Your task to perform on an android device: Open maps Image 0: 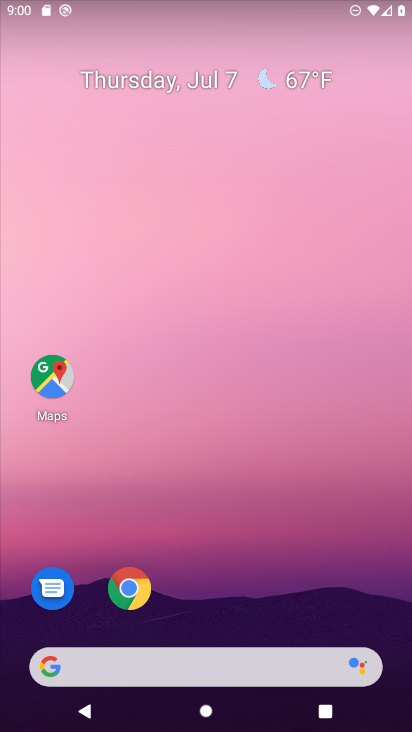
Step 0: click (54, 375)
Your task to perform on an android device: Open maps Image 1: 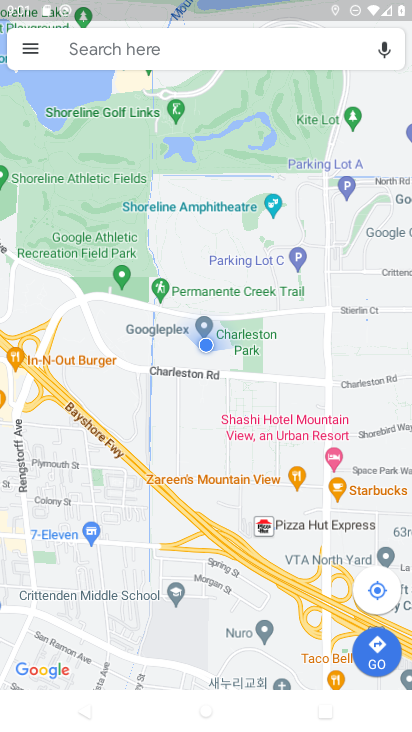
Step 1: task complete